Your task to perform on an android device: Go to Google Image 0: 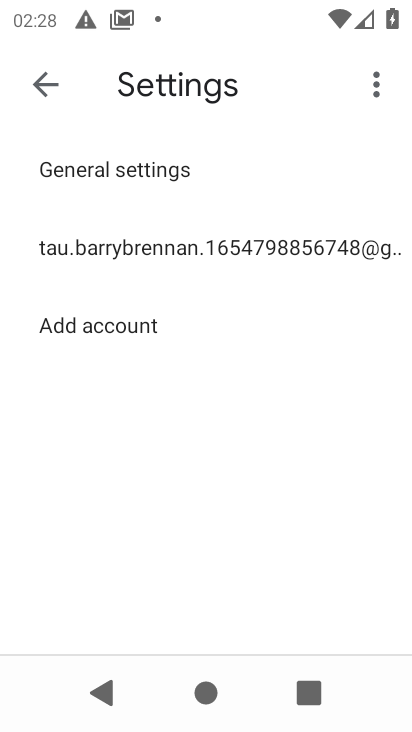
Step 0: press home button
Your task to perform on an android device: Go to Google Image 1: 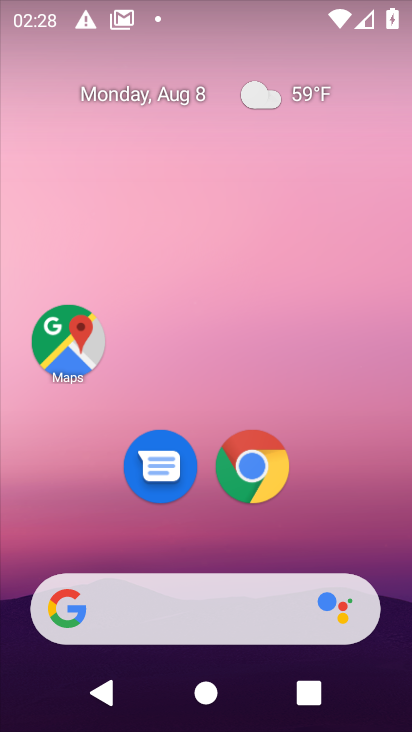
Step 1: drag from (176, 628) to (184, 100)
Your task to perform on an android device: Go to Google Image 2: 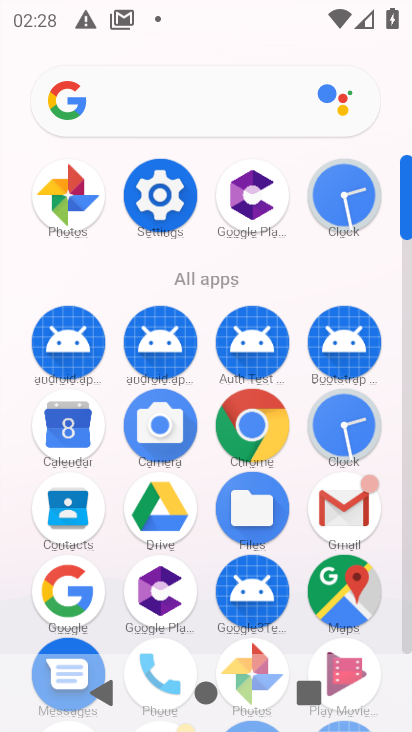
Step 2: click (70, 567)
Your task to perform on an android device: Go to Google Image 3: 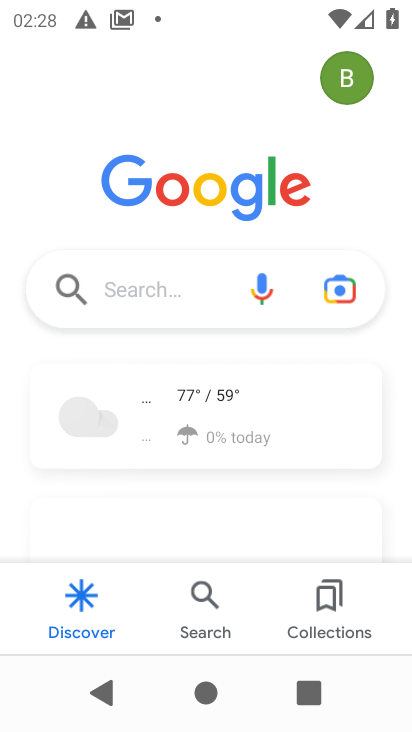
Step 3: task complete